Your task to perform on an android device: add a contact in the contacts app Image 0: 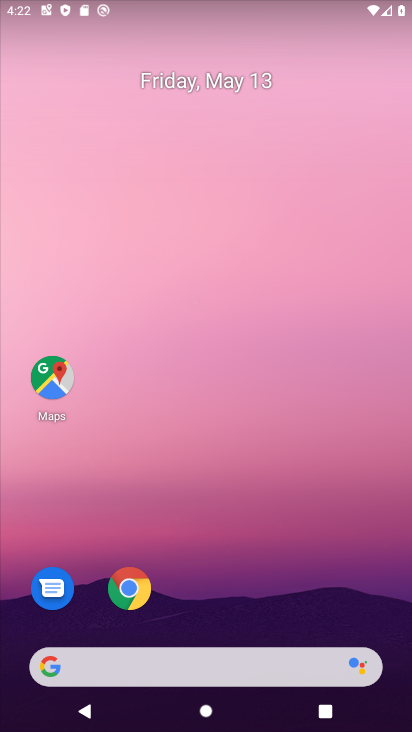
Step 0: drag from (181, 34) to (386, 49)
Your task to perform on an android device: add a contact in the contacts app Image 1: 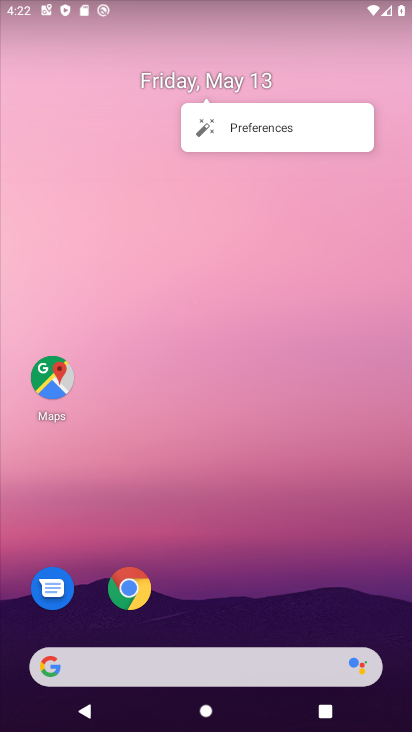
Step 1: drag from (172, 603) to (227, 23)
Your task to perform on an android device: add a contact in the contacts app Image 2: 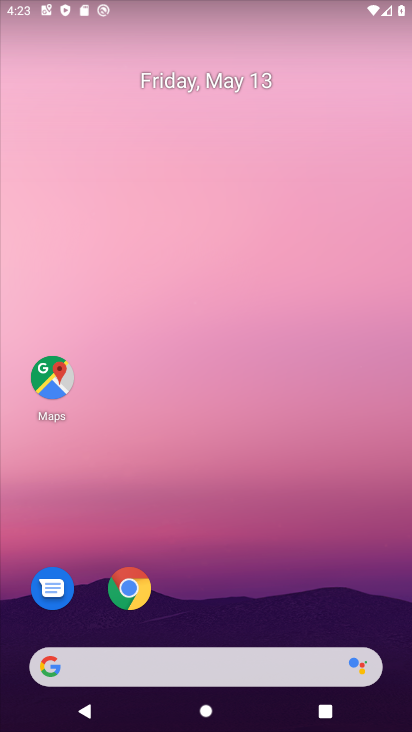
Step 2: drag from (193, 631) to (233, 101)
Your task to perform on an android device: add a contact in the contacts app Image 3: 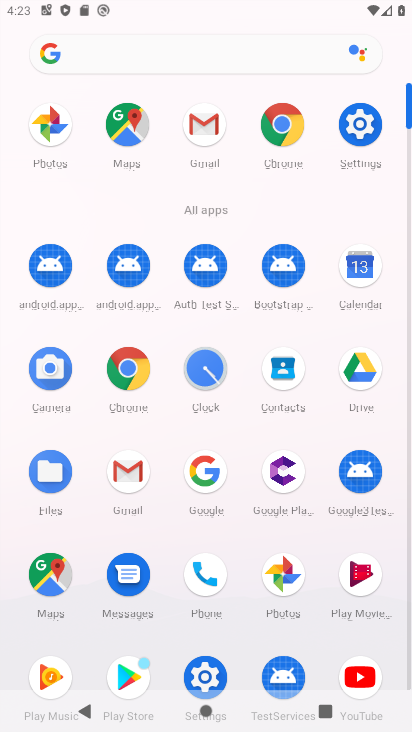
Step 3: click (278, 379)
Your task to perform on an android device: add a contact in the contacts app Image 4: 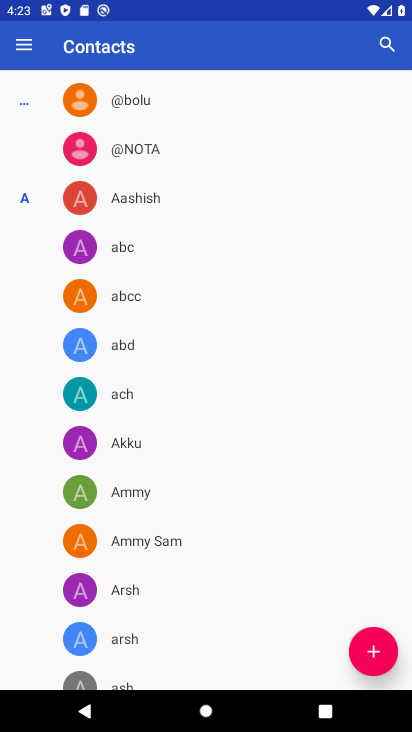
Step 4: click (368, 662)
Your task to perform on an android device: add a contact in the contacts app Image 5: 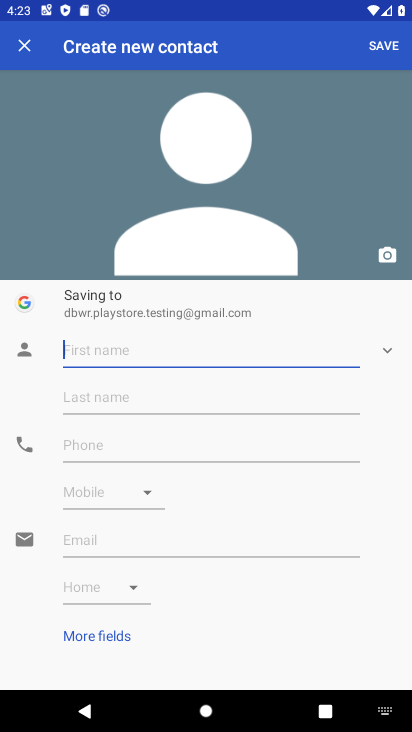
Step 5: type "new"
Your task to perform on an android device: add a contact in the contacts app Image 6: 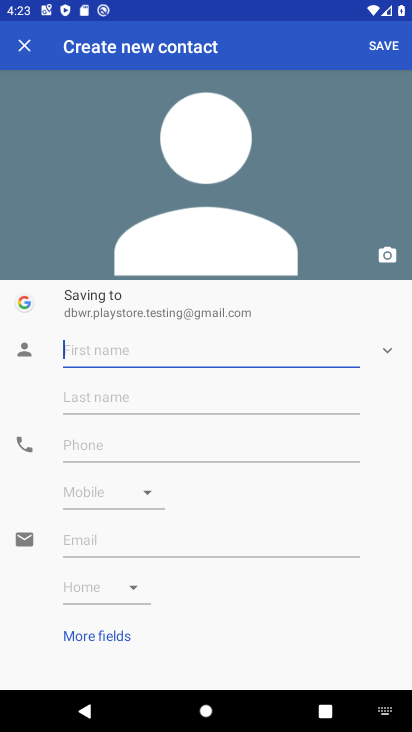
Step 6: click (122, 435)
Your task to perform on an android device: add a contact in the contacts app Image 7: 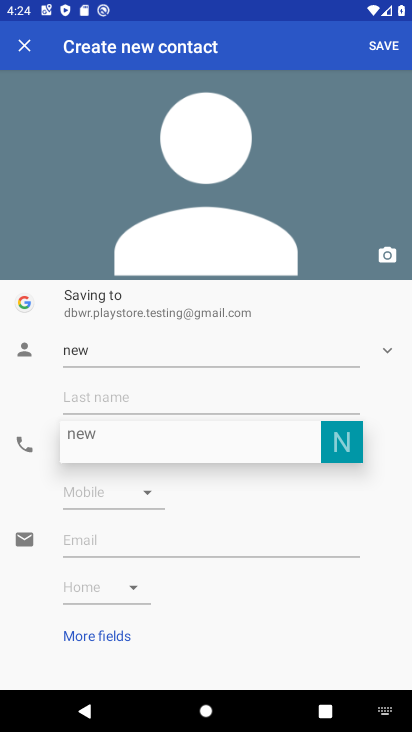
Step 7: type "here"
Your task to perform on an android device: add a contact in the contacts app Image 8: 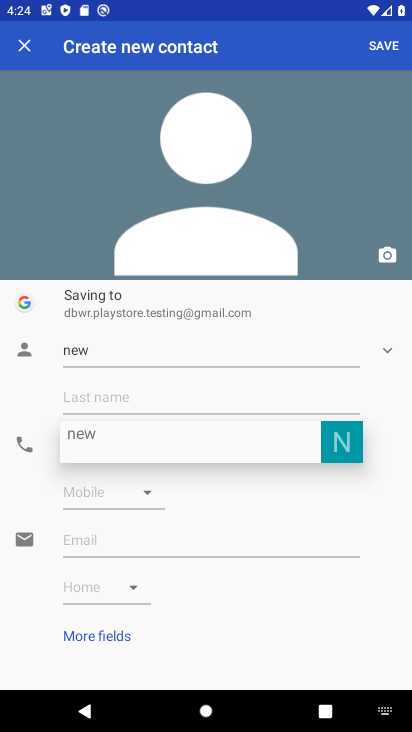
Step 8: click (185, 402)
Your task to perform on an android device: add a contact in the contacts app Image 9: 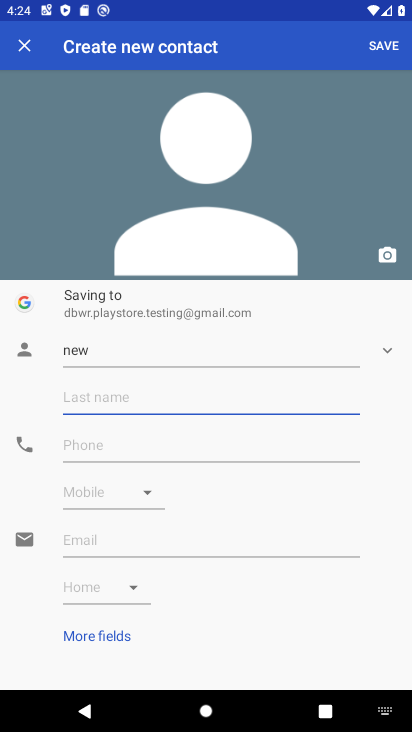
Step 9: type "here"
Your task to perform on an android device: add a contact in the contacts app Image 10: 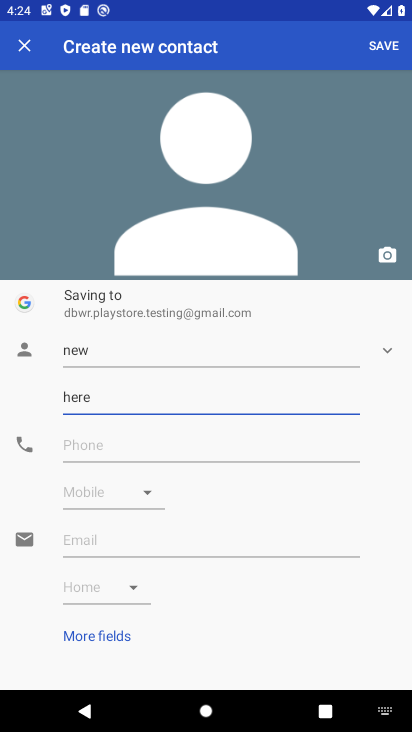
Step 10: click (89, 452)
Your task to perform on an android device: add a contact in the contacts app Image 11: 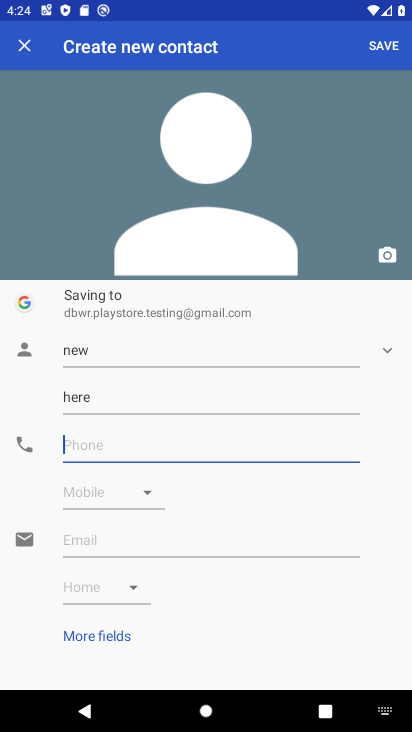
Step 11: type "456789876"
Your task to perform on an android device: add a contact in the contacts app Image 12: 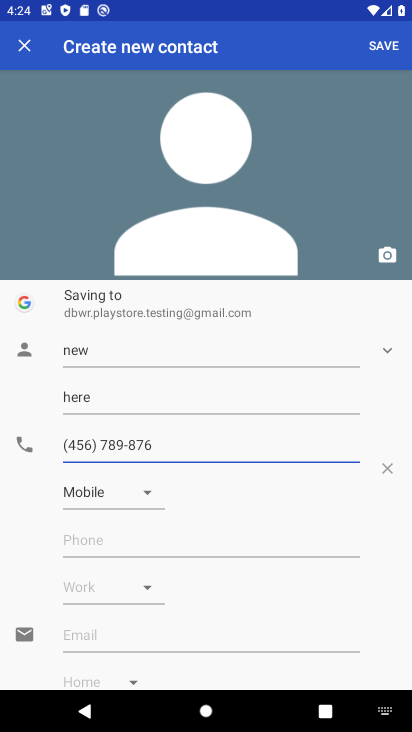
Step 12: click (368, 54)
Your task to perform on an android device: add a contact in the contacts app Image 13: 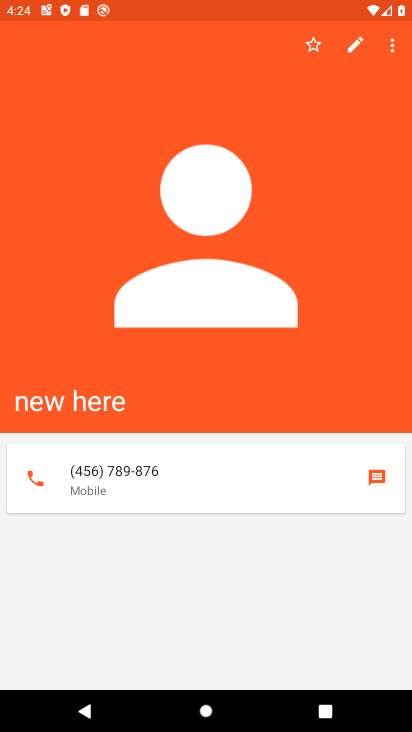
Step 13: task complete